Your task to perform on an android device: turn off notifications settings in the gmail app Image 0: 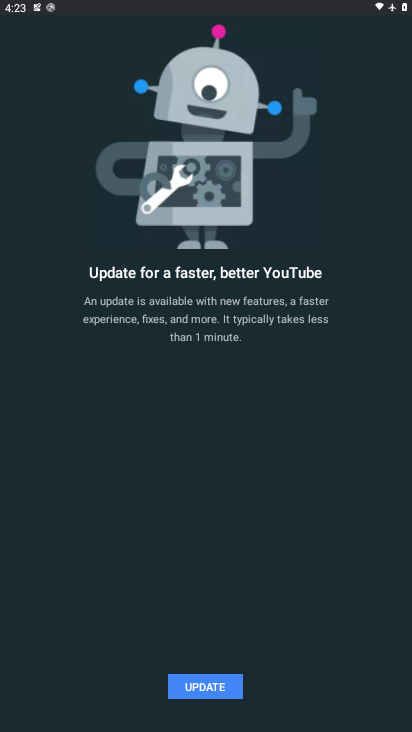
Step 0: press home button
Your task to perform on an android device: turn off notifications settings in the gmail app Image 1: 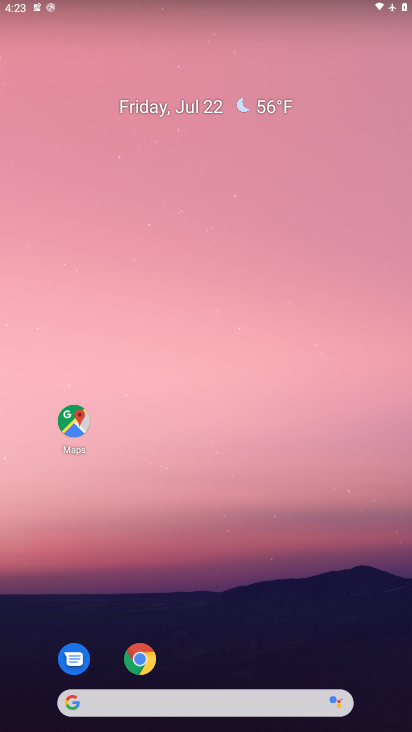
Step 1: drag from (161, 688) to (191, 126)
Your task to perform on an android device: turn off notifications settings in the gmail app Image 2: 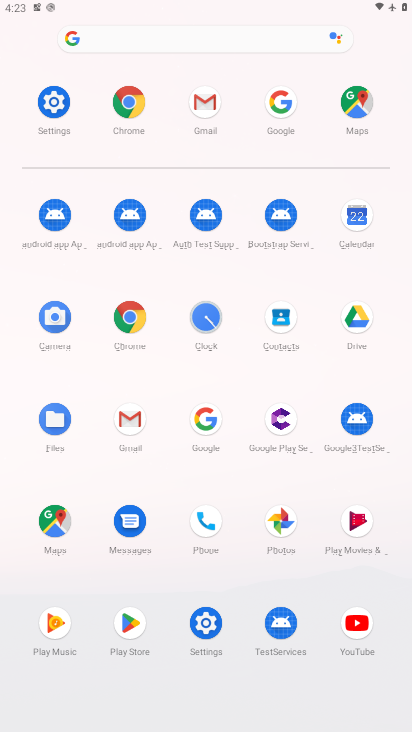
Step 2: click (128, 419)
Your task to perform on an android device: turn off notifications settings in the gmail app Image 3: 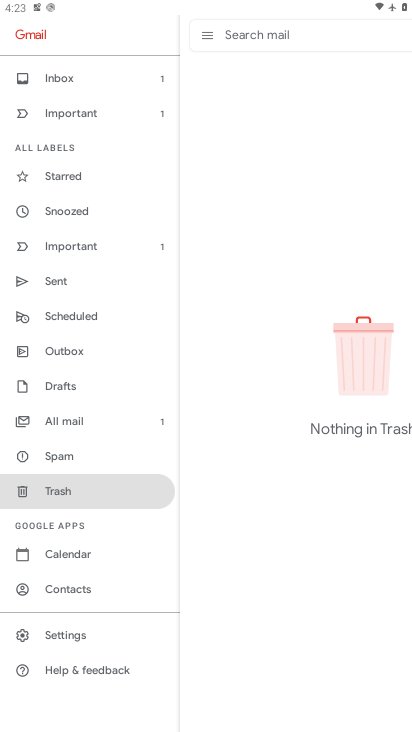
Step 3: click (75, 639)
Your task to perform on an android device: turn off notifications settings in the gmail app Image 4: 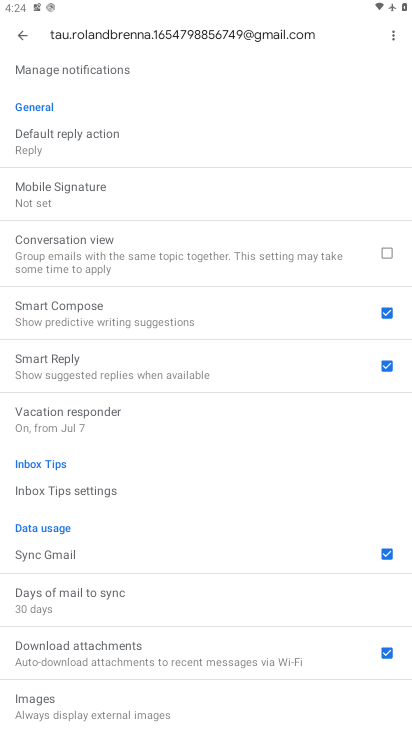
Step 4: click (82, 63)
Your task to perform on an android device: turn off notifications settings in the gmail app Image 5: 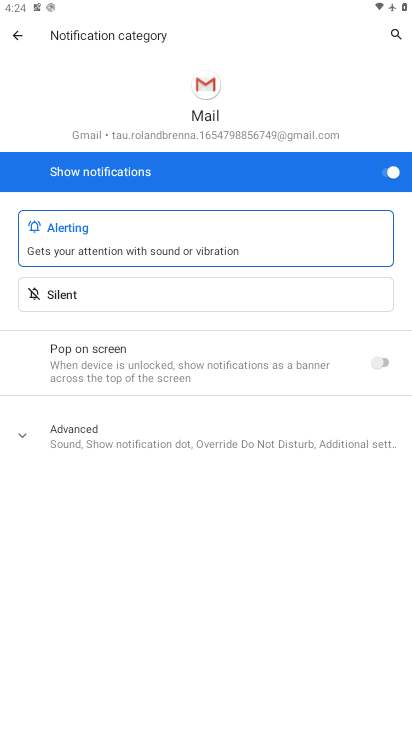
Step 5: click (383, 168)
Your task to perform on an android device: turn off notifications settings in the gmail app Image 6: 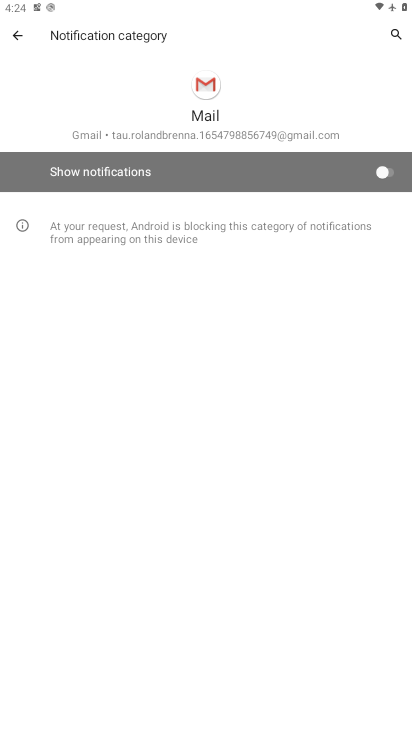
Step 6: task complete